Your task to perform on an android device: toggle airplane mode Image 0: 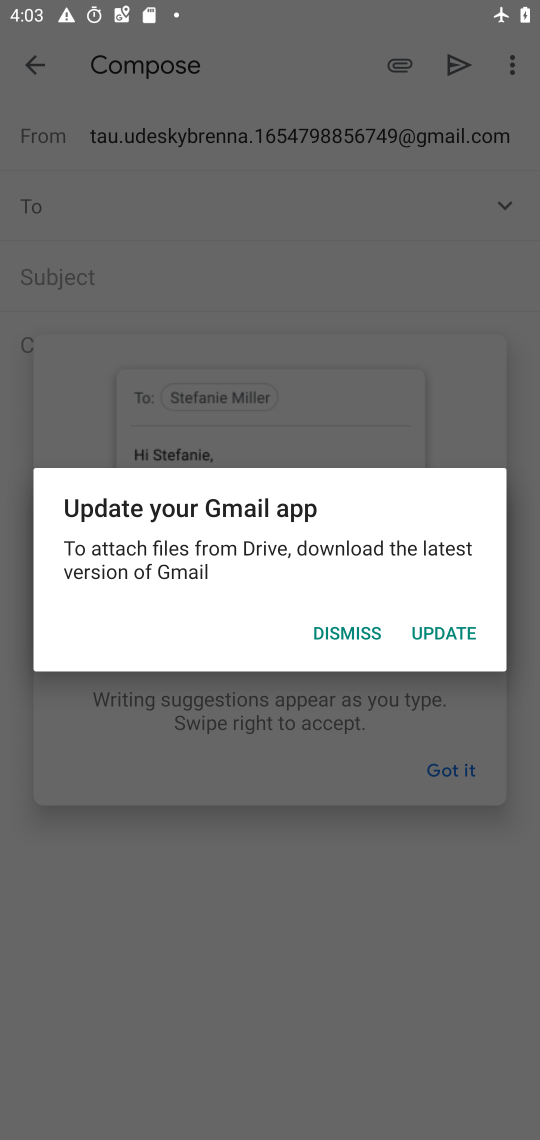
Step 0: press home button
Your task to perform on an android device: toggle airplane mode Image 1: 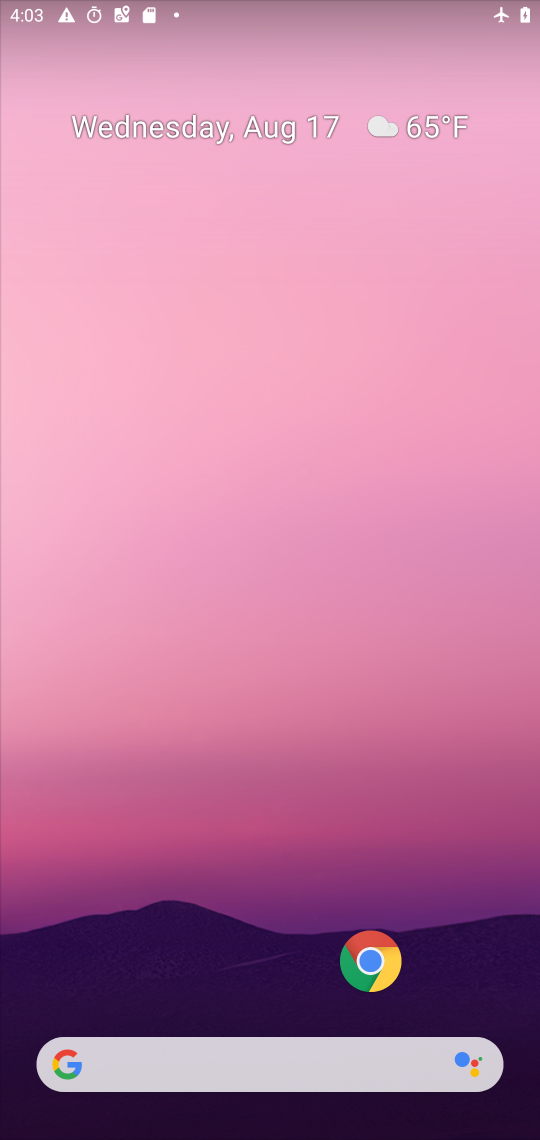
Step 1: drag from (288, 1096) to (312, 360)
Your task to perform on an android device: toggle airplane mode Image 2: 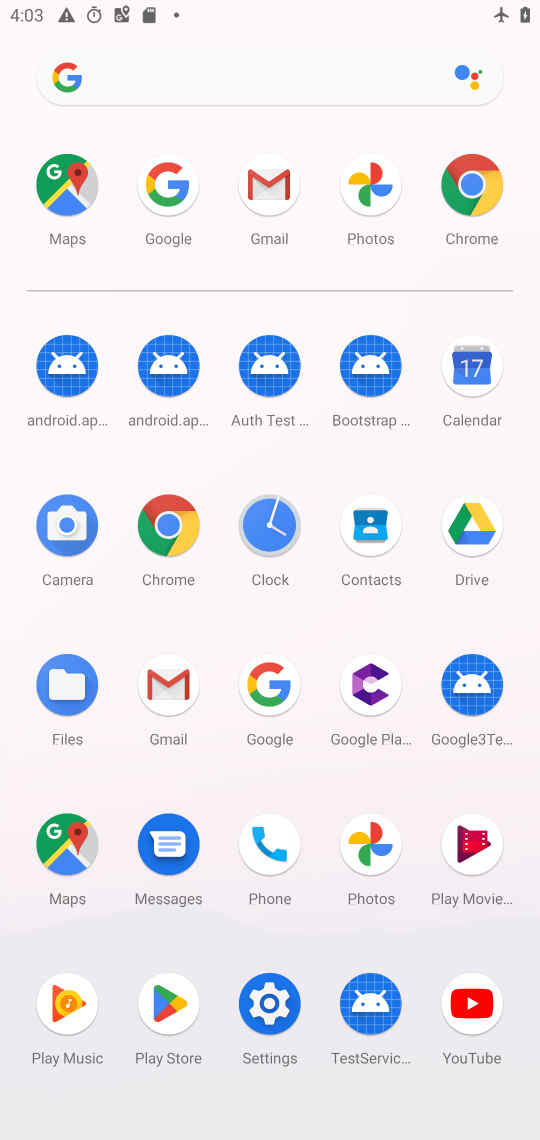
Step 2: click (268, 1032)
Your task to perform on an android device: toggle airplane mode Image 3: 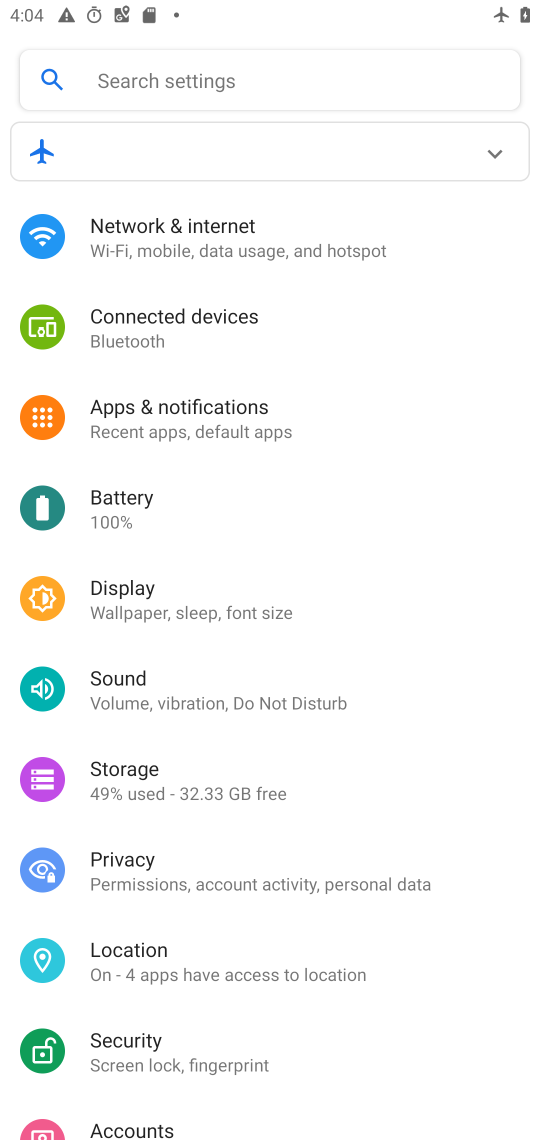
Step 3: click (224, 242)
Your task to perform on an android device: toggle airplane mode Image 4: 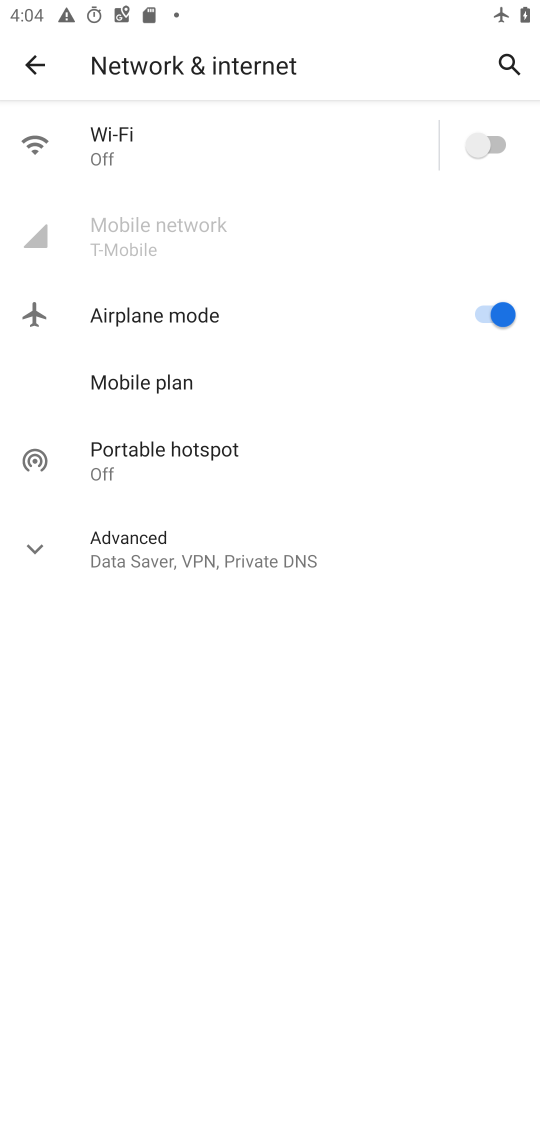
Step 4: click (351, 323)
Your task to perform on an android device: toggle airplane mode Image 5: 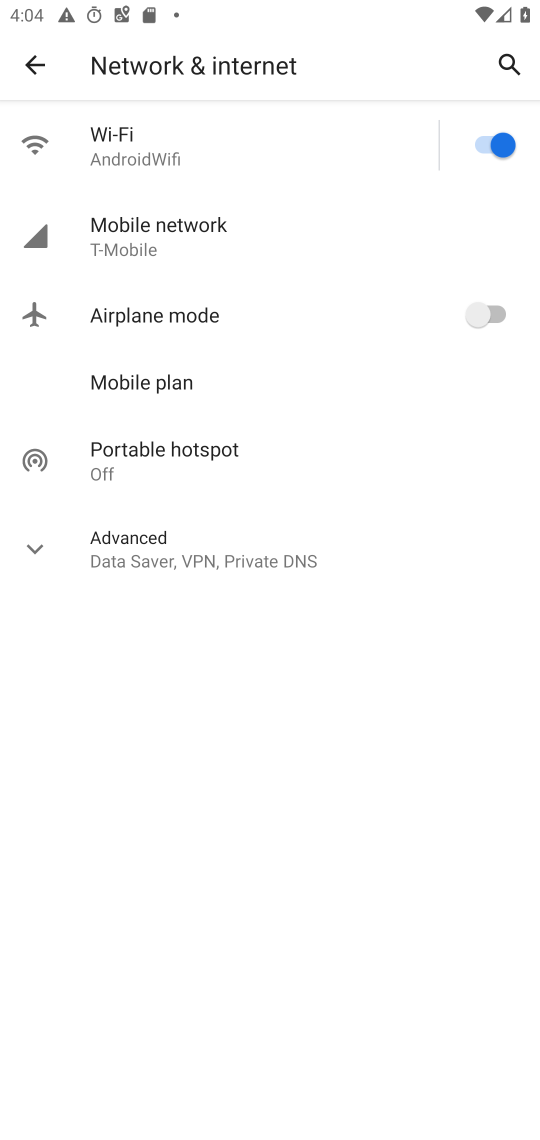
Step 5: task complete